Your task to perform on an android device: Open Wikipedia Image 0: 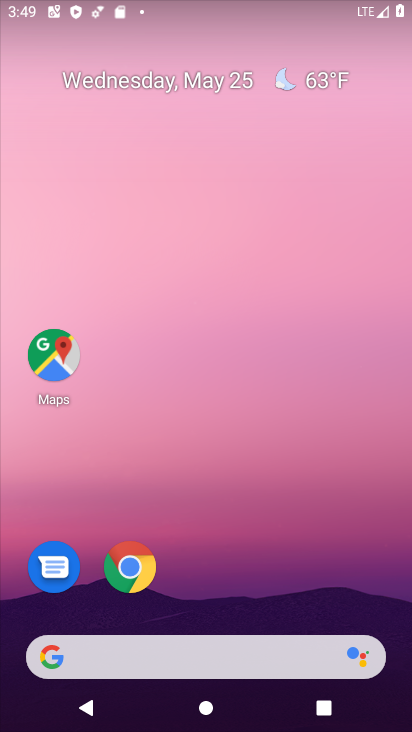
Step 0: drag from (258, 598) to (248, 52)
Your task to perform on an android device: Open Wikipedia Image 1: 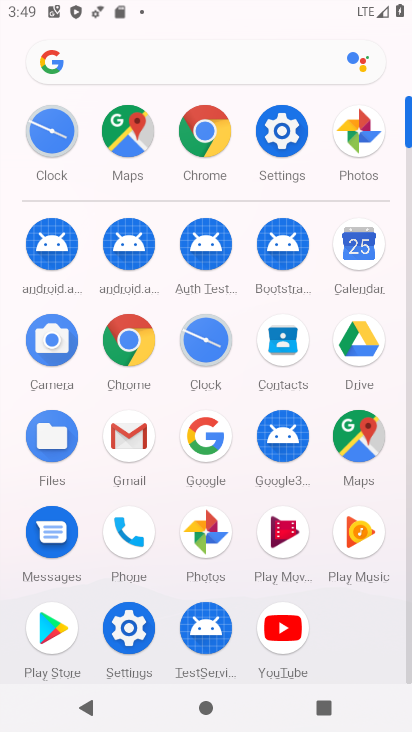
Step 1: click (124, 347)
Your task to perform on an android device: Open Wikipedia Image 2: 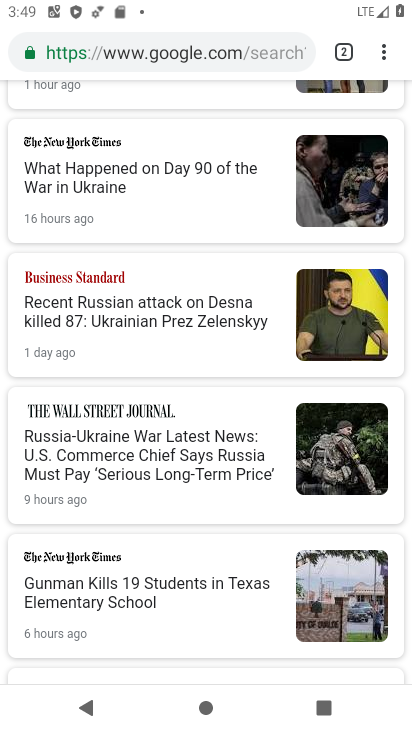
Step 2: drag from (388, 47) to (179, 94)
Your task to perform on an android device: Open Wikipedia Image 3: 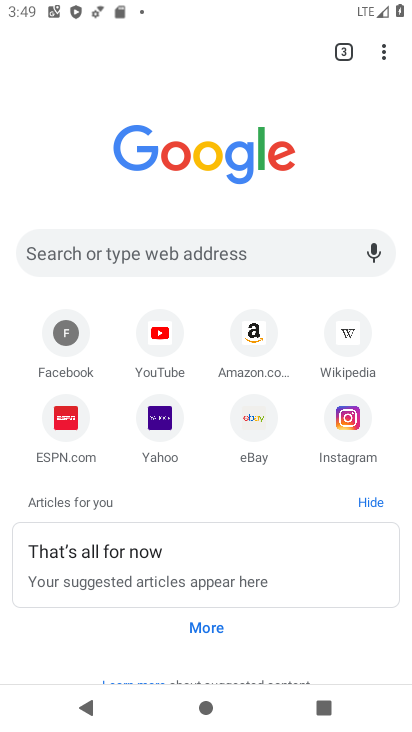
Step 3: click (352, 338)
Your task to perform on an android device: Open Wikipedia Image 4: 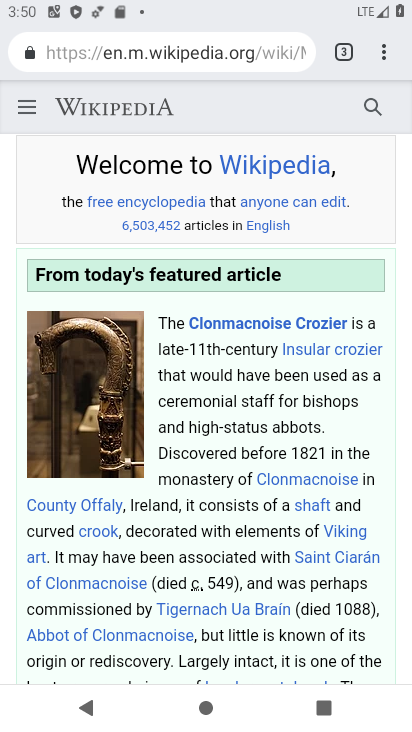
Step 4: task complete